Your task to perform on an android device: check battery use Image 0: 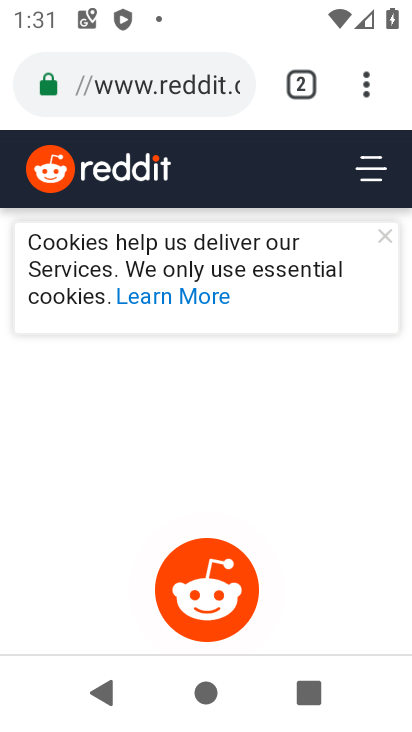
Step 0: press home button
Your task to perform on an android device: check battery use Image 1: 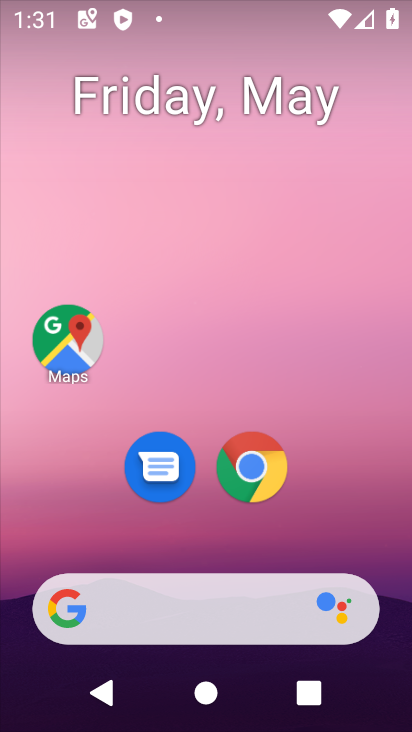
Step 1: drag from (322, 527) to (311, 97)
Your task to perform on an android device: check battery use Image 2: 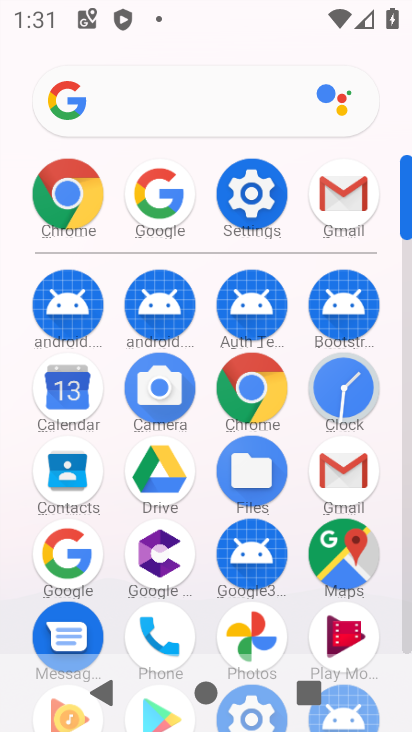
Step 2: click (243, 195)
Your task to perform on an android device: check battery use Image 3: 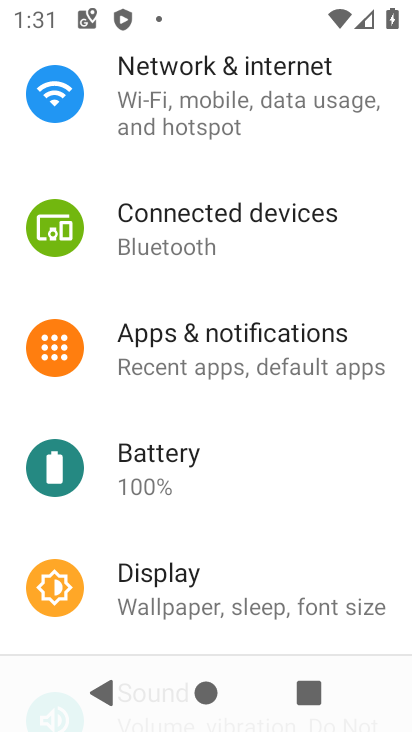
Step 3: click (151, 472)
Your task to perform on an android device: check battery use Image 4: 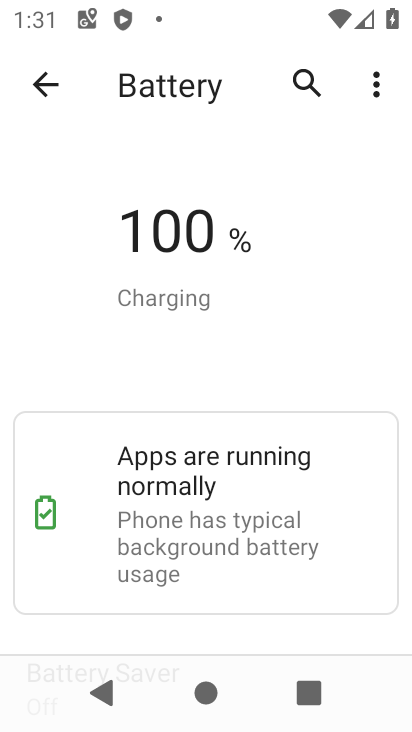
Step 4: click (372, 95)
Your task to perform on an android device: check battery use Image 5: 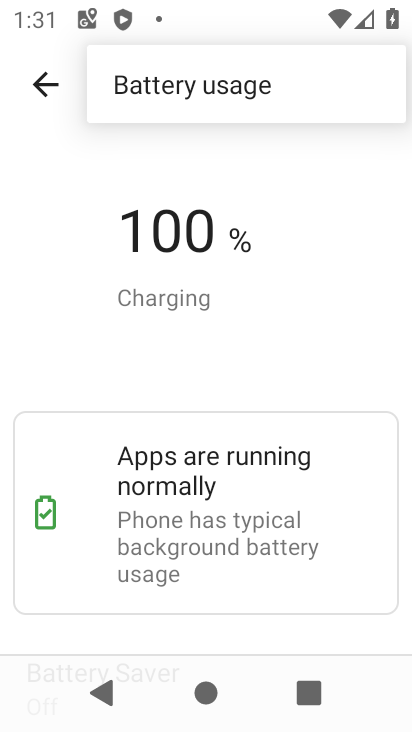
Step 5: click (265, 89)
Your task to perform on an android device: check battery use Image 6: 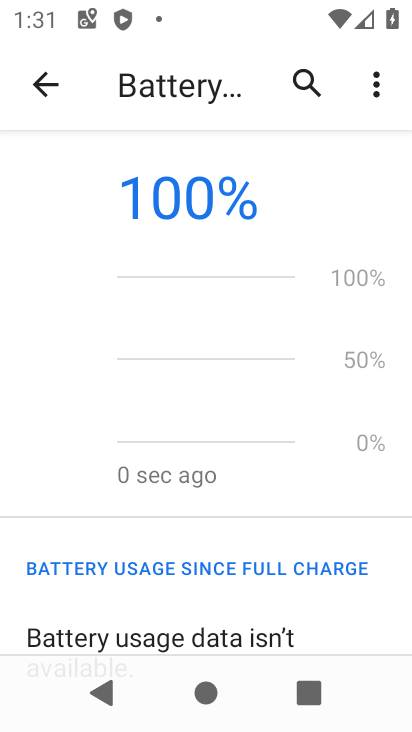
Step 6: task complete